Your task to perform on an android device: open app "Messenger Lite" (install if not already installed) Image 0: 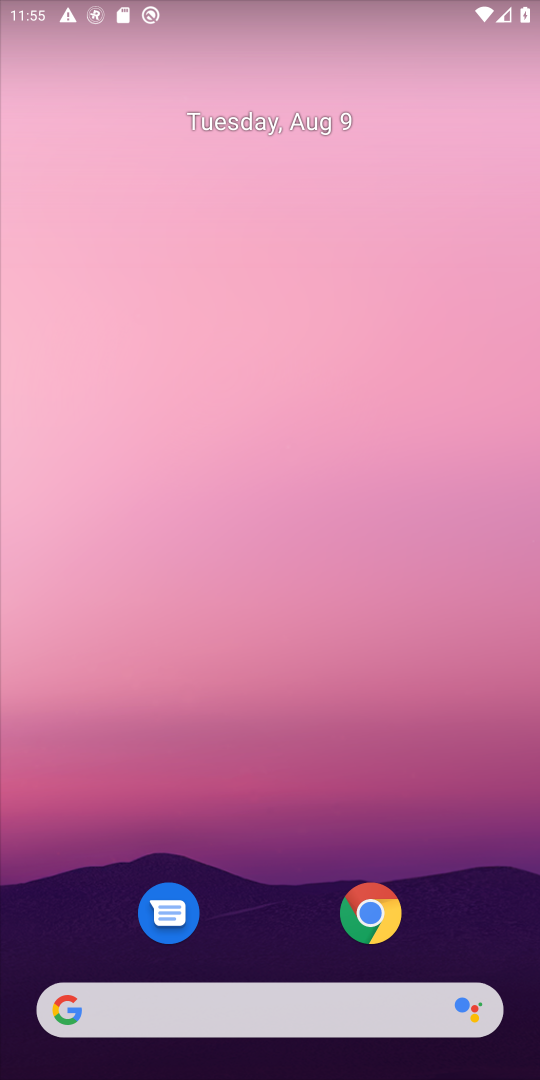
Step 0: drag from (275, 956) to (316, 355)
Your task to perform on an android device: open app "Messenger Lite" (install if not already installed) Image 1: 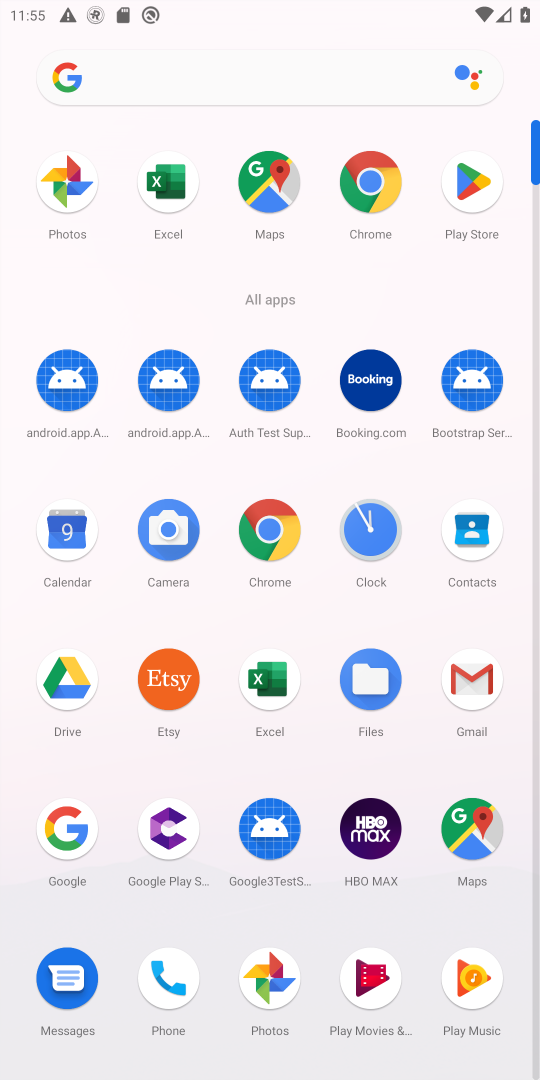
Step 1: click (470, 197)
Your task to perform on an android device: open app "Messenger Lite" (install if not already installed) Image 2: 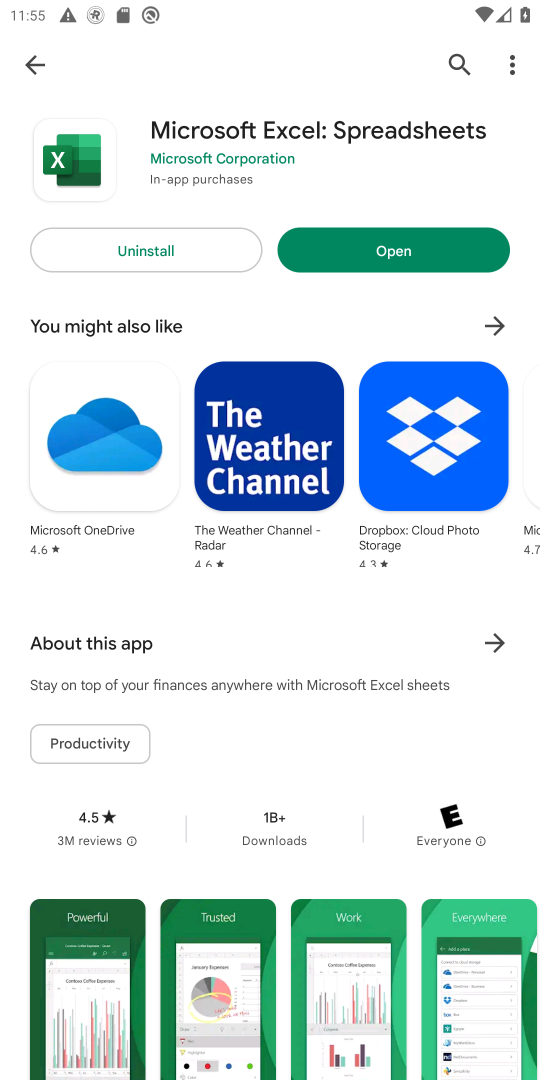
Step 2: click (34, 49)
Your task to perform on an android device: open app "Messenger Lite" (install if not already installed) Image 3: 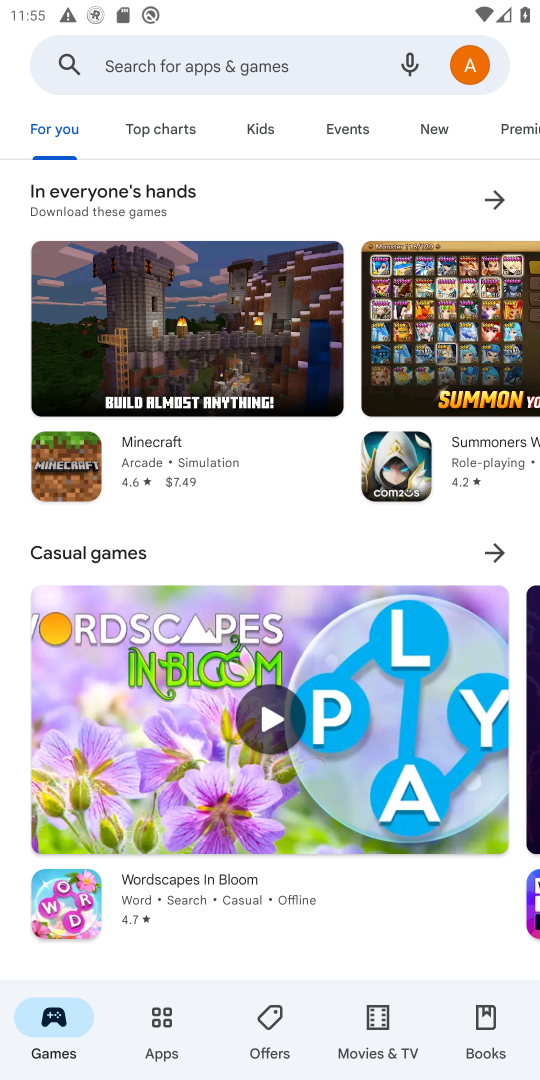
Step 3: click (203, 49)
Your task to perform on an android device: open app "Messenger Lite" (install if not already installed) Image 4: 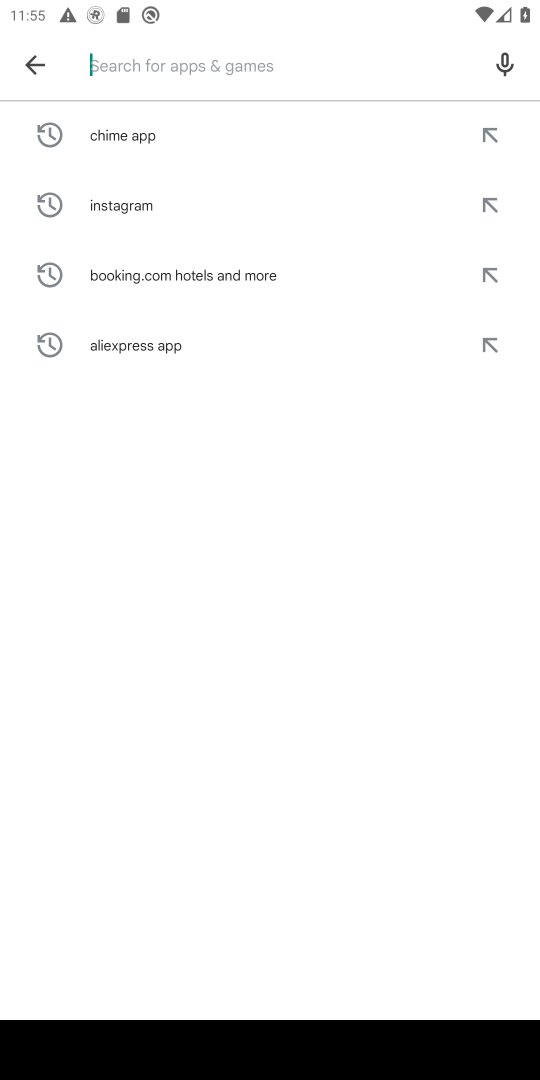
Step 4: type "messenger lite "
Your task to perform on an android device: open app "Messenger Lite" (install if not already installed) Image 5: 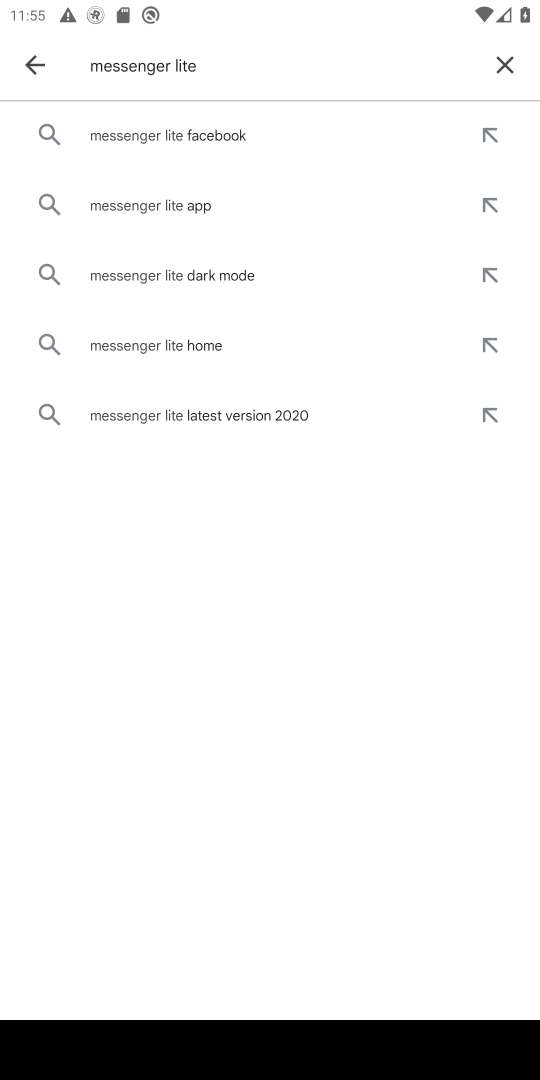
Step 5: click (155, 196)
Your task to perform on an android device: open app "Messenger Lite" (install if not already installed) Image 6: 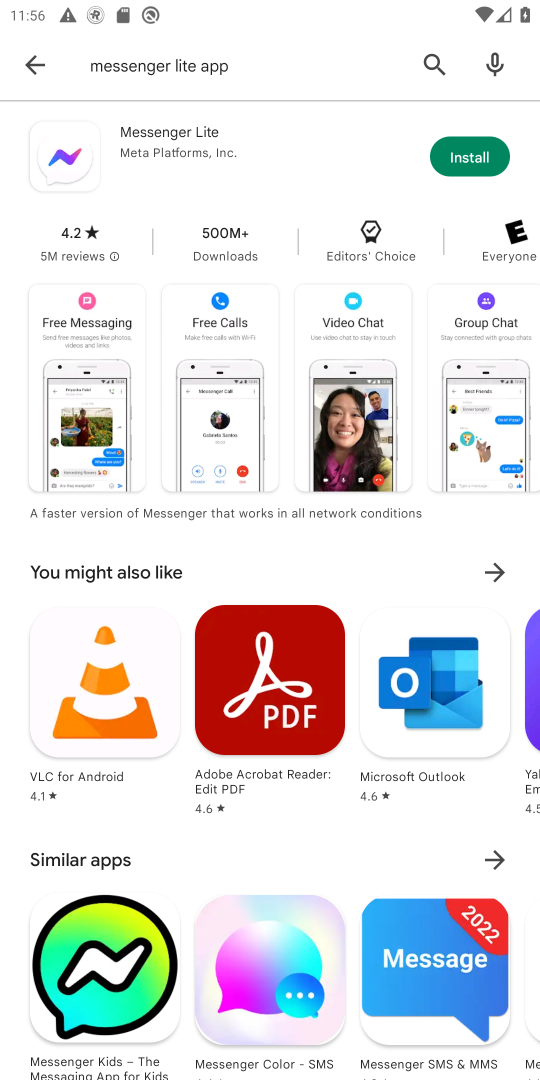
Step 6: click (481, 153)
Your task to perform on an android device: open app "Messenger Lite" (install if not already installed) Image 7: 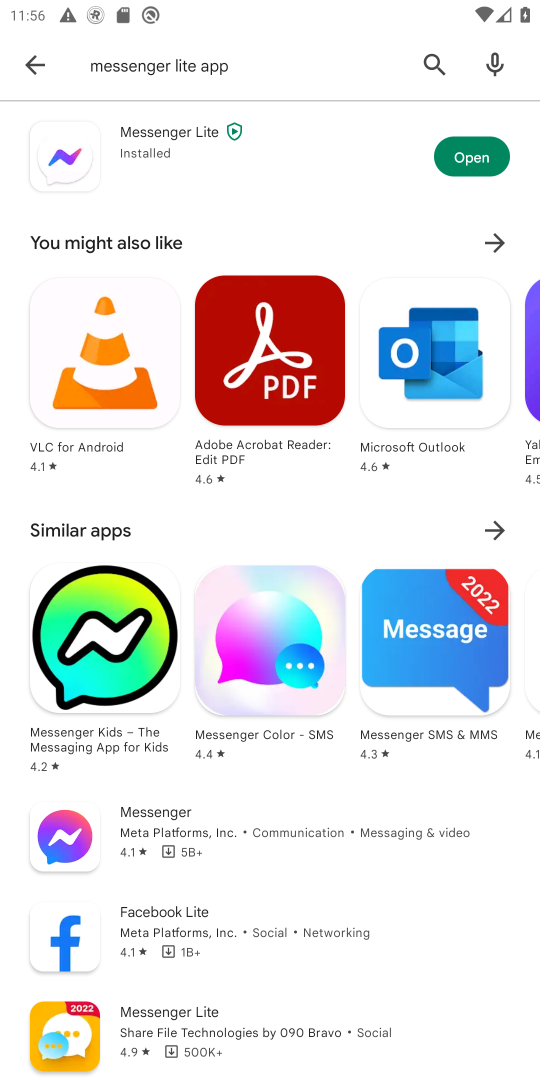
Step 7: click (495, 156)
Your task to perform on an android device: open app "Messenger Lite" (install if not already installed) Image 8: 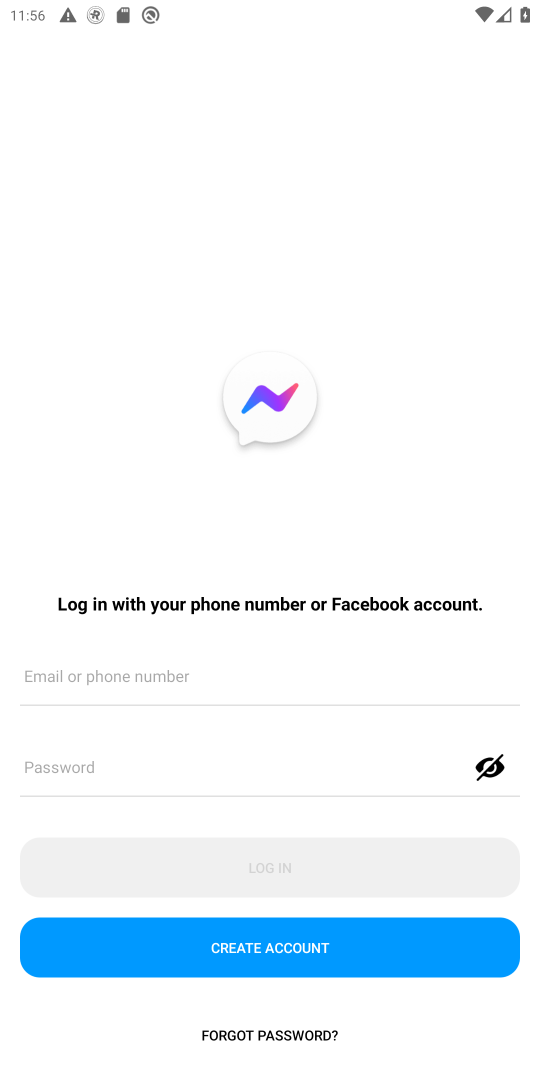
Step 8: task complete